Your task to perform on an android device: turn off translation in the chrome app Image 0: 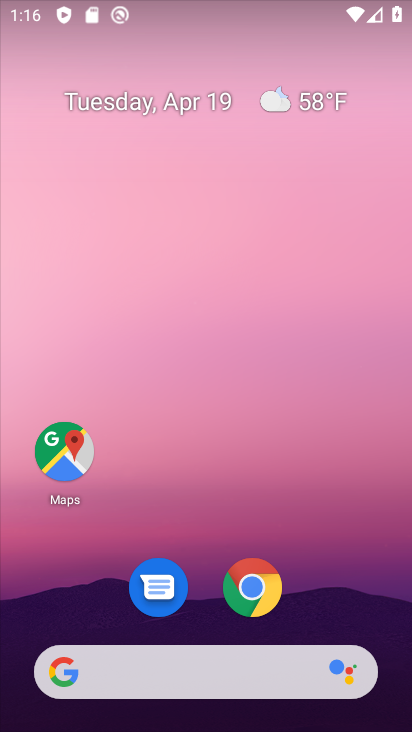
Step 0: press home button
Your task to perform on an android device: turn off translation in the chrome app Image 1: 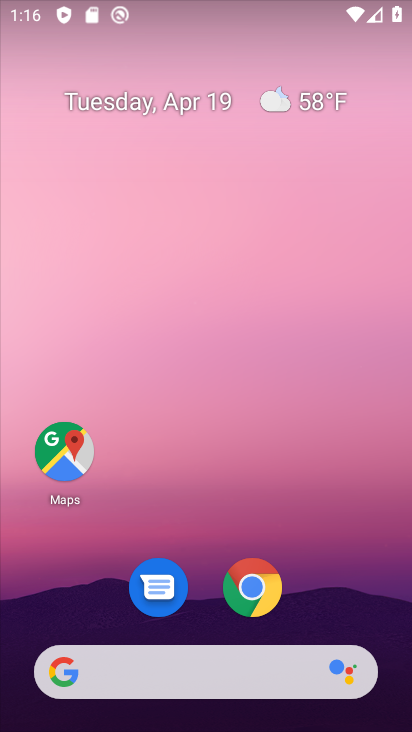
Step 1: drag from (333, 585) to (305, 209)
Your task to perform on an android device: turn off translation in the chrome app Image 2: 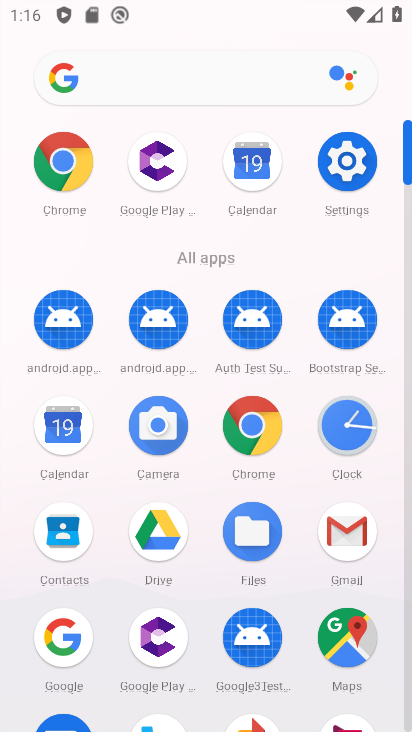
Step 2: click (69, 179)
Your task to perform on an android device: turn off translation in the chrome app Image 3: 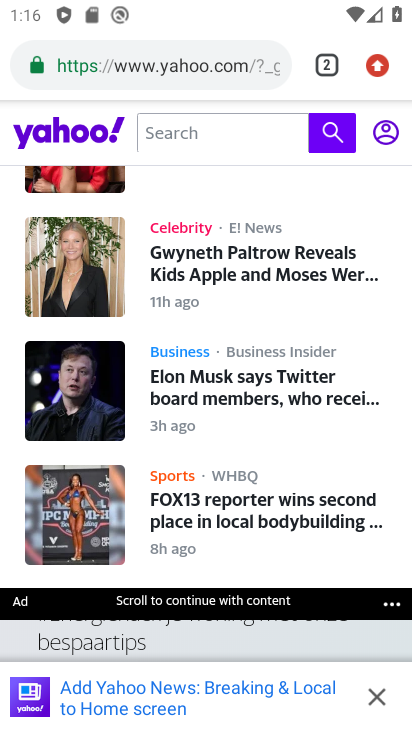
Step 3: click (383, 66)
Your task to perform on an android device: turn off translation in the chrome app Image 4: 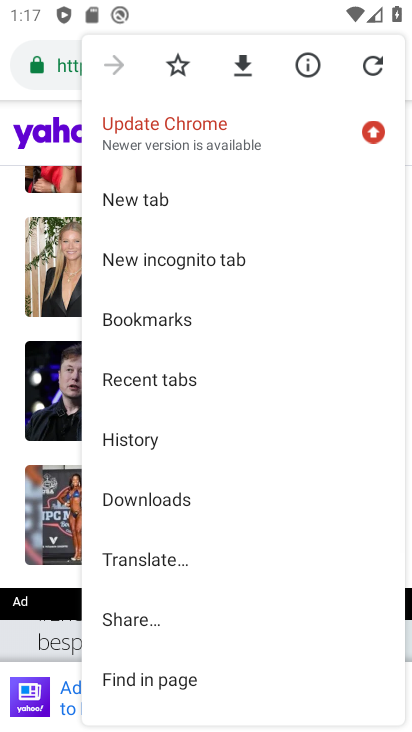
Step 4: drag from (180, 621) to (168, 308)
Your task to perform on an android device: turn off translation in the chrome app Image 5: 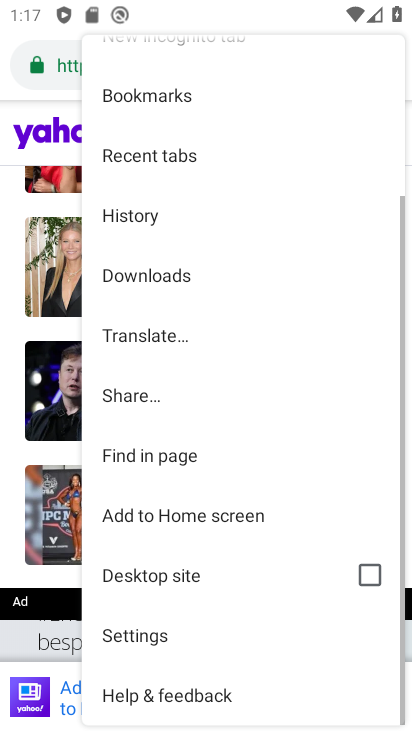
Step 5: click (118, 639)
Your task to perform on an android device: turn off translation in the chrome app Image 6: 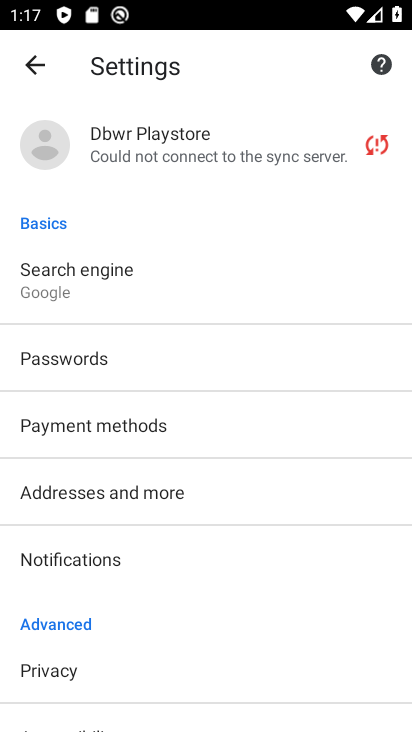
Step 6: drag from (120, 631) to (123, 305)
Your task to perform on an android device: turn off translation in the chrome app Image 7: 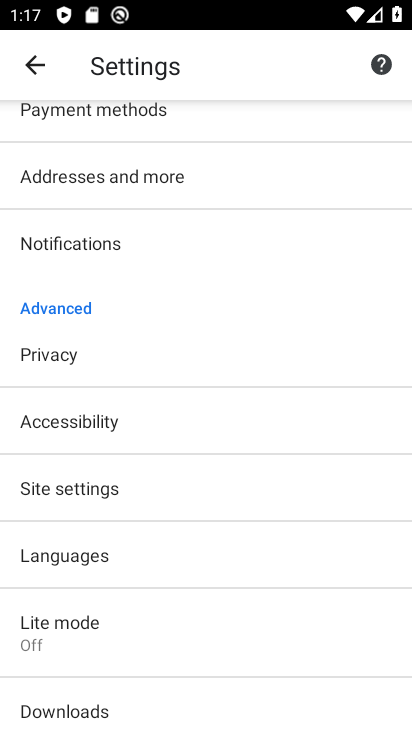
Step 7: click (69, 558)
Your task to perform on an android device: turn off translation in the chrome app Image 8: 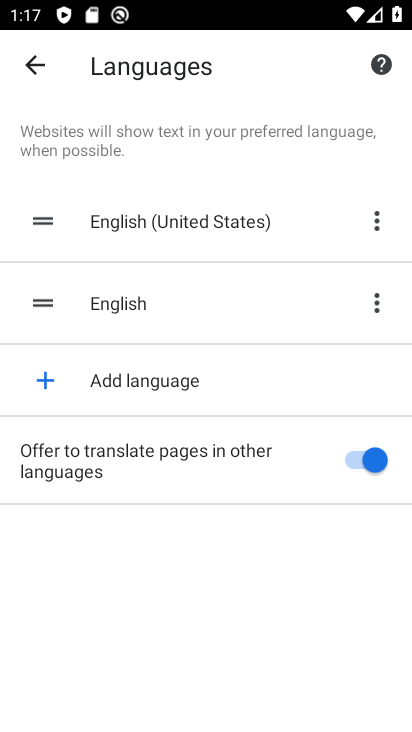
Step 8: click (368, 458)
Your task to perform on an android device: turn off translation in the chrome app Image 9: 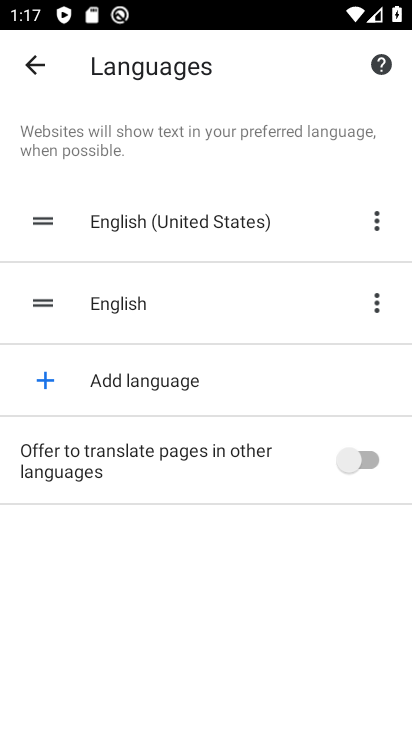
Step 9: task complete